Your task to perform on an android device: check android version Image 0: 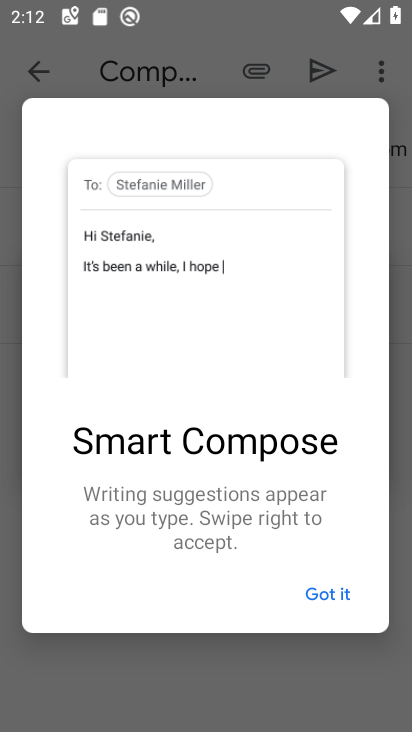
Step 0: click (199, 631)
Your task to perform on an android device: check android version Image 1: 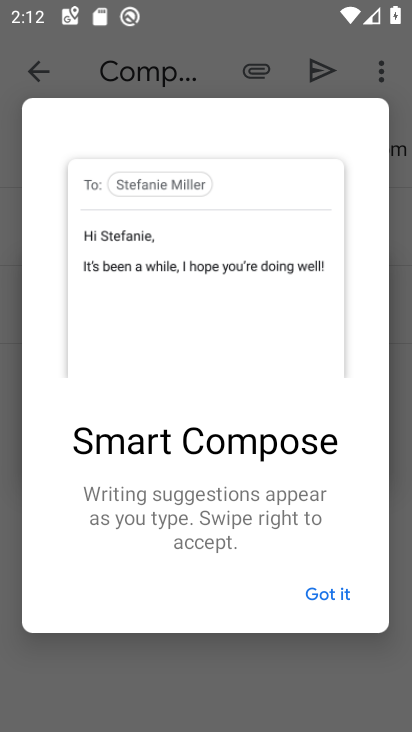
Step 1: press home button
Your task to perform on an android device: check android version Image 2: 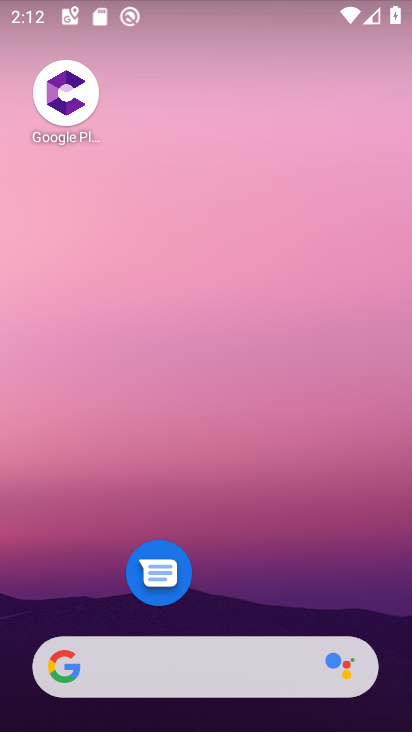
Step 2: drag from (190, 610) to (155, 47)
Your task to perform on an android device: check android version Image 3: 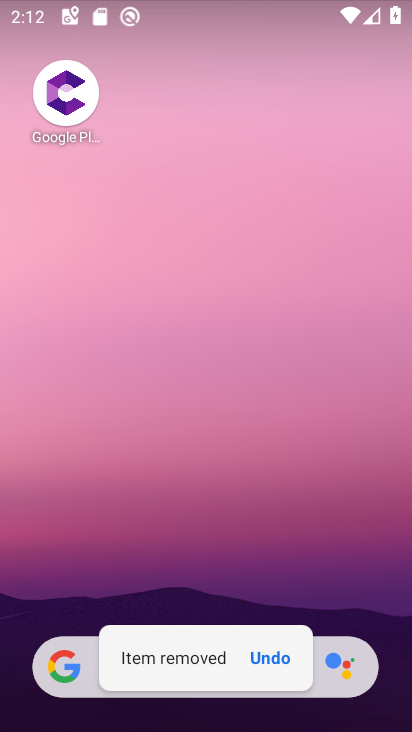
Step 3: drag from (272, 613) to (254, 89)
Your task to perform on an android device: check android version Image 4: 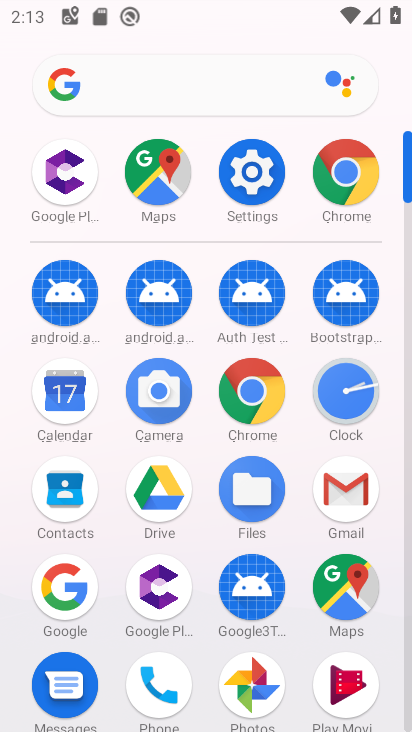
Step 4: click (236, 188)
Your task to perform on an android device: check android version Image 5: 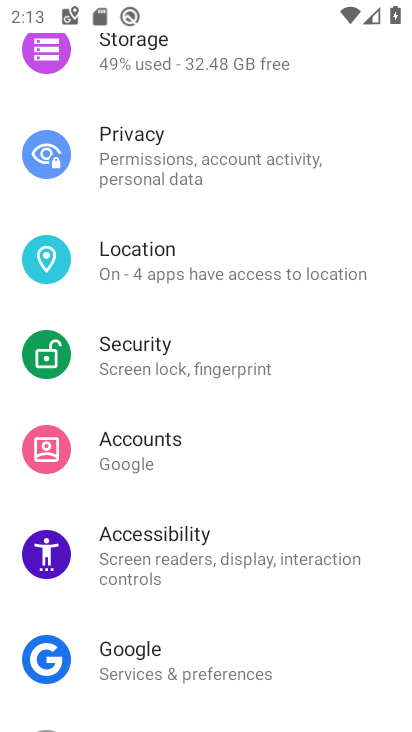
Step 5: drag from (188, 594) to (177, 124)
Your task to perform on an android device: check android version Image 6: 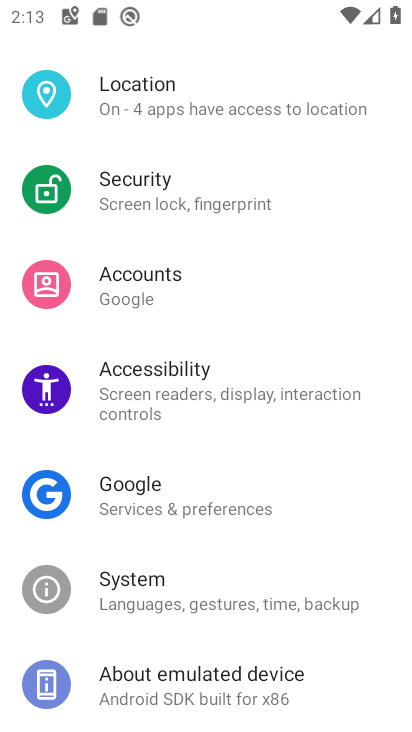
Step 6: drag from (256, 580) to (243, 231)
Your task to perform on an android device: check android version Image 7: 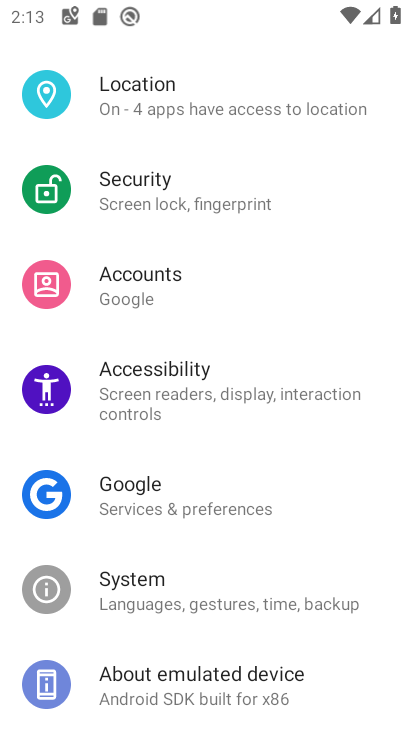
Step 7: click (249, 660)
Your task to perform on an android device: check android version Image 8: 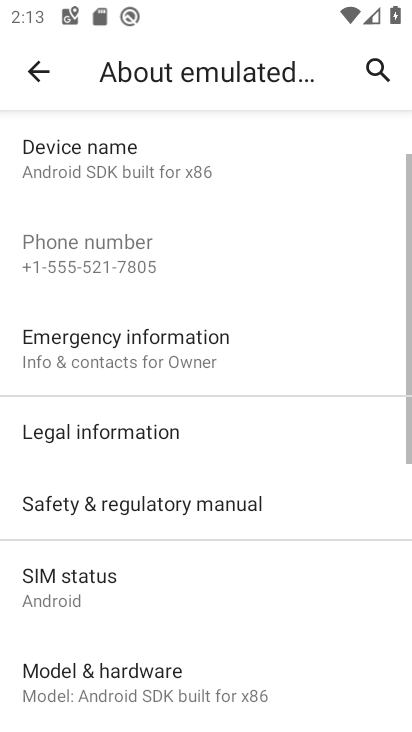
Step 8: drag from (163, 520) to (177, 262)
Your task to perform on an android device: check android version Image 9: 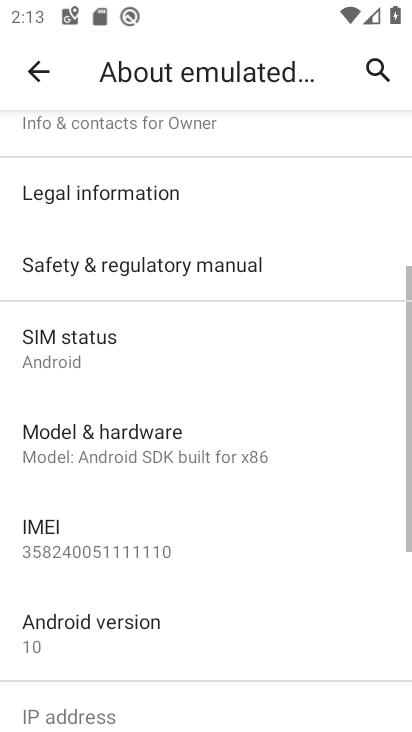
Step 9: click (48, 607)
Your task to perform on an android device: check android version Image 10: 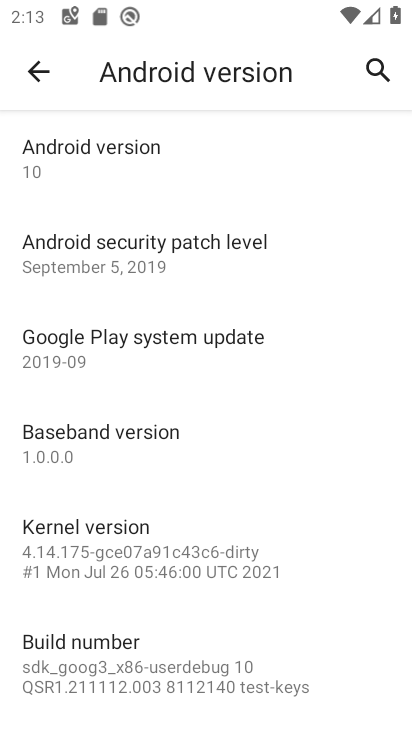
Step 10: click (136, 195)
Your task to perform on an android device: check android version Image 11: 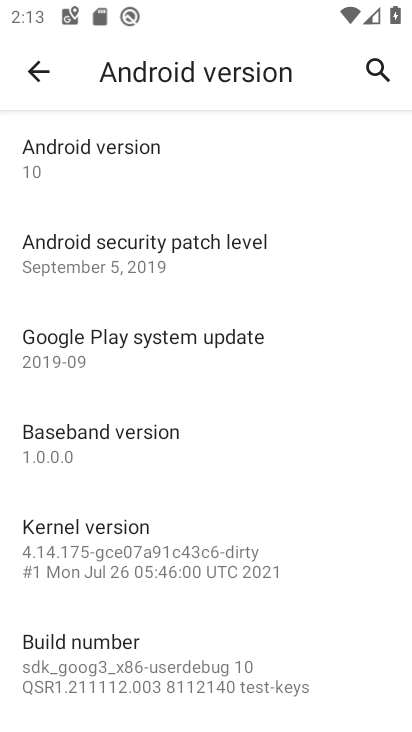
Step 11: task complete